Your task to perform on an android device: Open CNN.com Image 0: 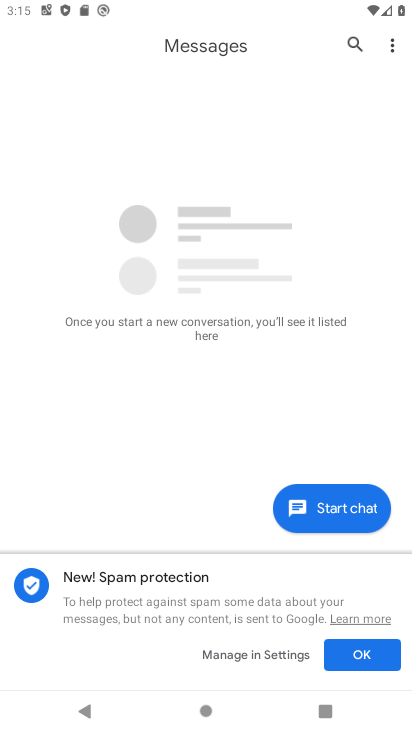
Step 0: press home button
Your task to perform on an android device: Open CNN.com Image 1: 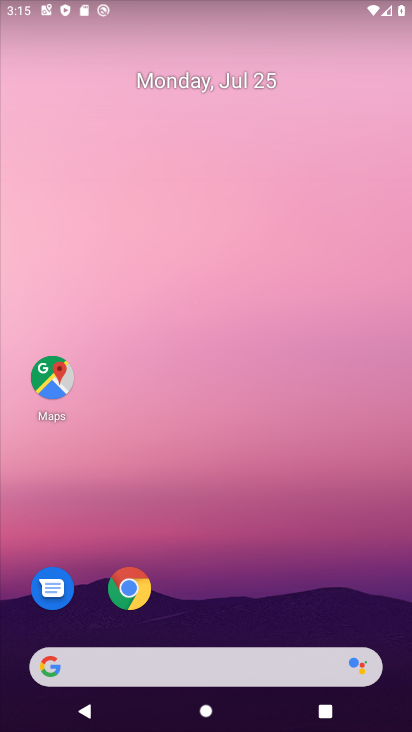
Step 1: click (141, 593)
Your task to perform on an android device: Open CNN.com Image 2: 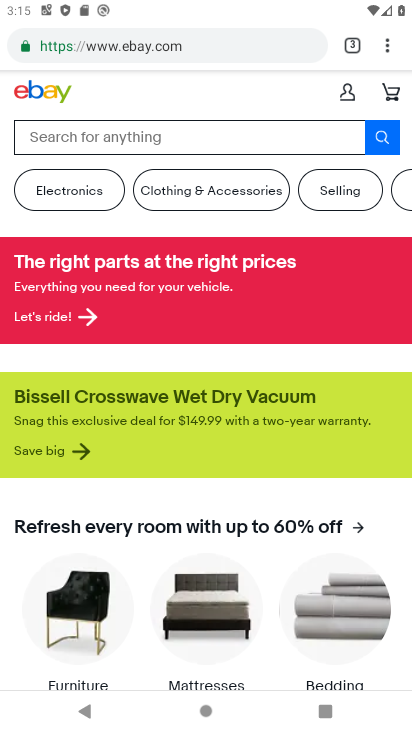
Step 2: click (355, 42)
Your task to perform on an android device: Open CNN.com Image 3: 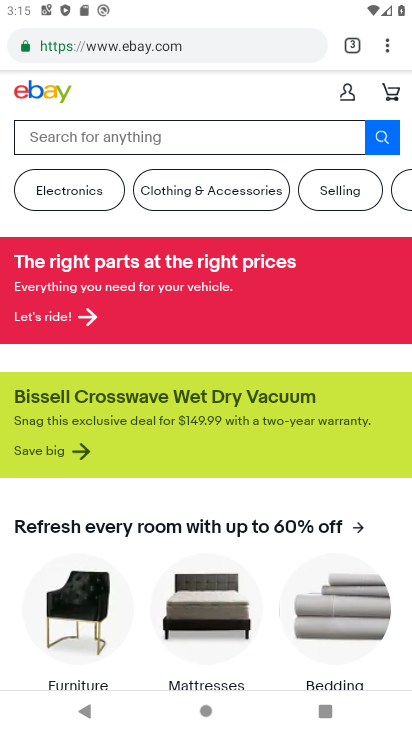
Step 3: click (364, 45)
Your task to perform on an android device: Open CNN.com Image 4: 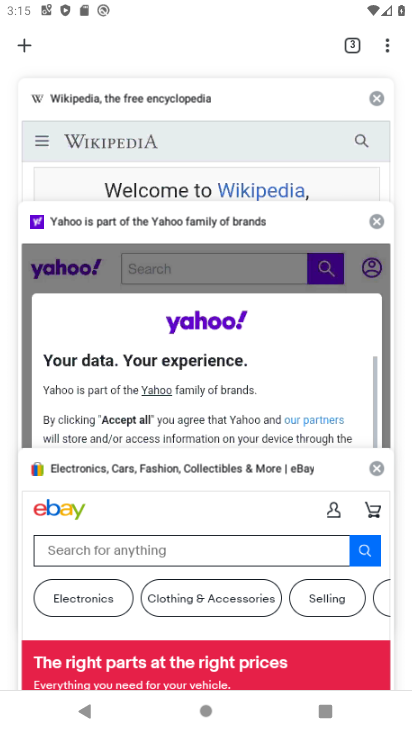
Step 4: click (17, 38)
Your task to perform on an android device: Open CNN.com Image 5: 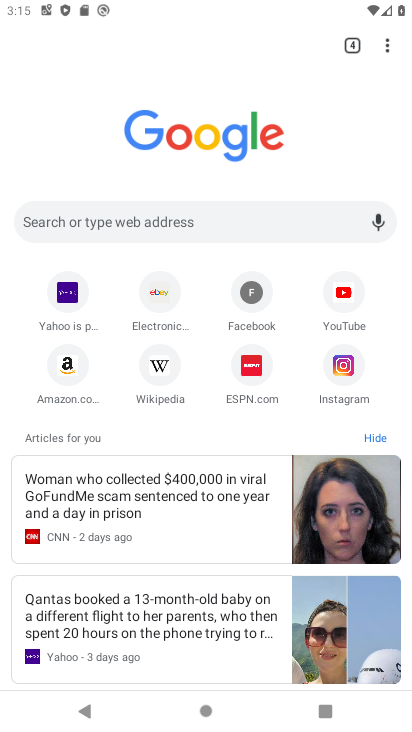
Step 5: click (185, 222)
Your task to perform on an android device: Open CNN.com Image 6: 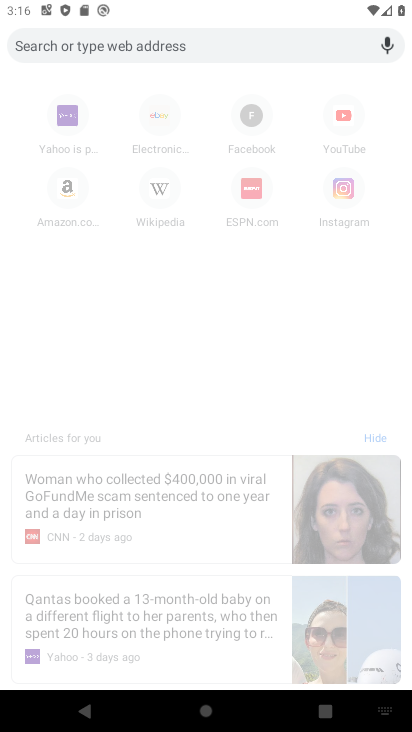
Step 6: type "CNN.com"
Your task to perform on an android device: Open CNN.com Image 7: 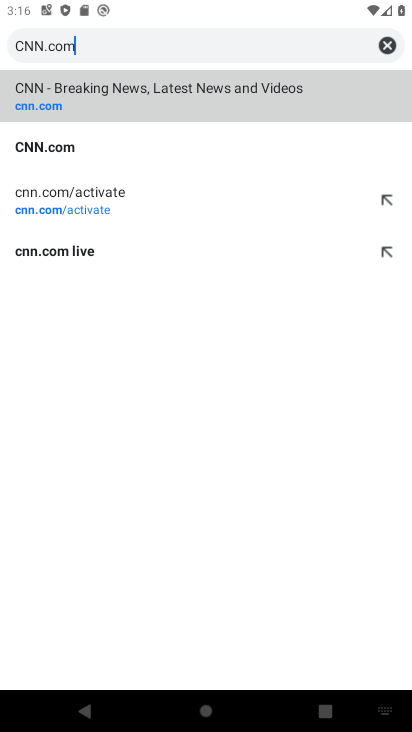
Step 7: type ""
Your task to perform on an android device: Open CNN.com Image 8: 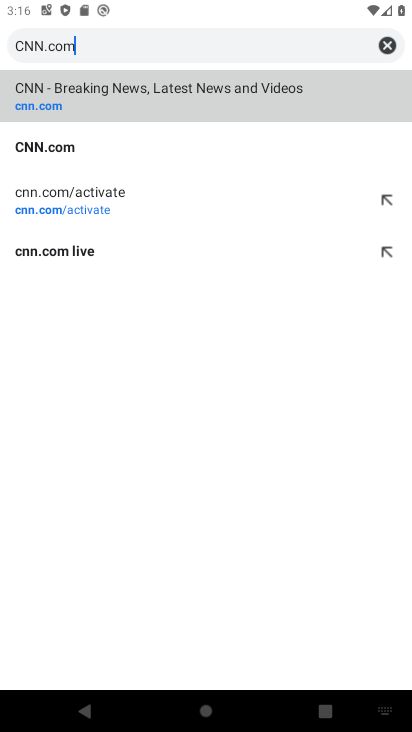
Step 8: click (186, 79)
Your task to perform on an android device: Open CNN.com Image 9: 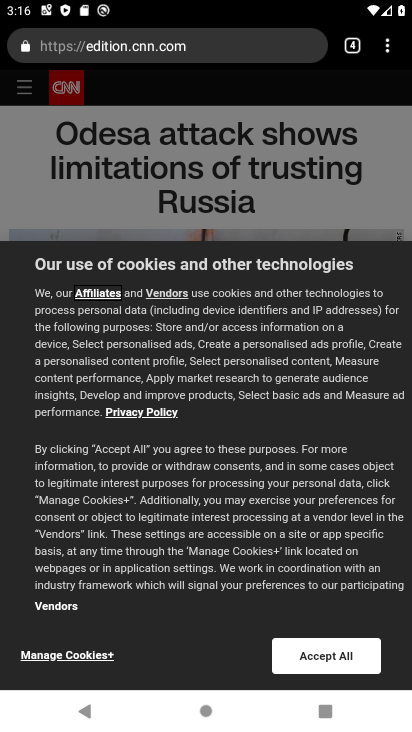
Step 9: task complete